Your task to perform on an android device: turn off notifications settings in the gmail app Image 0: 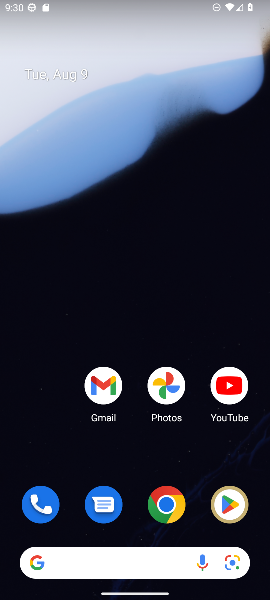
Step 0: click (102, 390)
Your task to perform on an android device: turn off notifications settings in the gmail app Image 1: 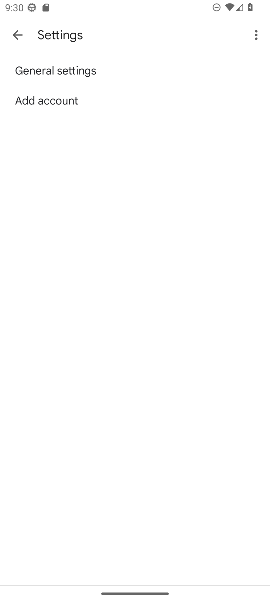
Step 1: click (41, 69)
Your task to perform on an android device: turn off notifications settings in the gmail app Image 2: 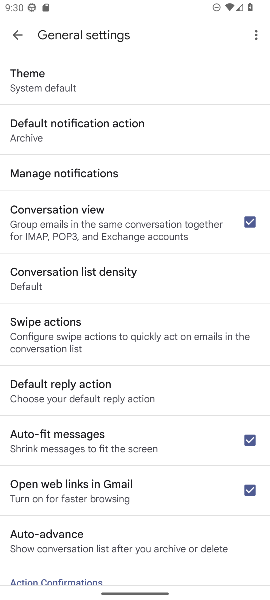
Step 2: click (75, 169)
Your task to perform on an android device: turn off notifications settings in the gmail app Image 3: 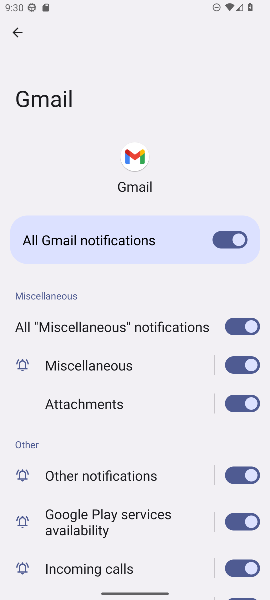
Step 3: click (241, 241)
Your task to perform on an android device: turn off notifications settings in the gmail app Image 4: 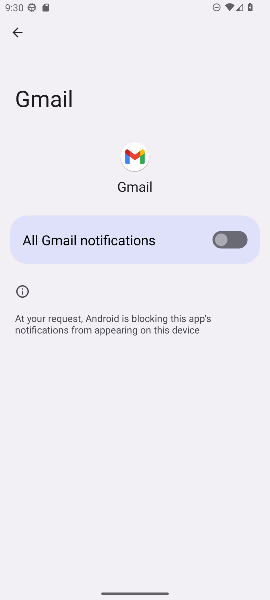
Step 4: task complete